Your task to perform on an android device: empty trash in the gmail app Image 0: 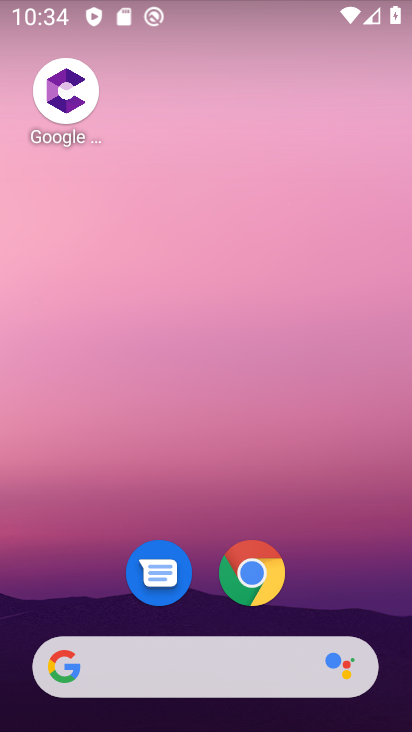
Step 0: drag from (345, 532) to (363, 98)
Your task to perform on an android device: empty trash in the gmail app Image 1: 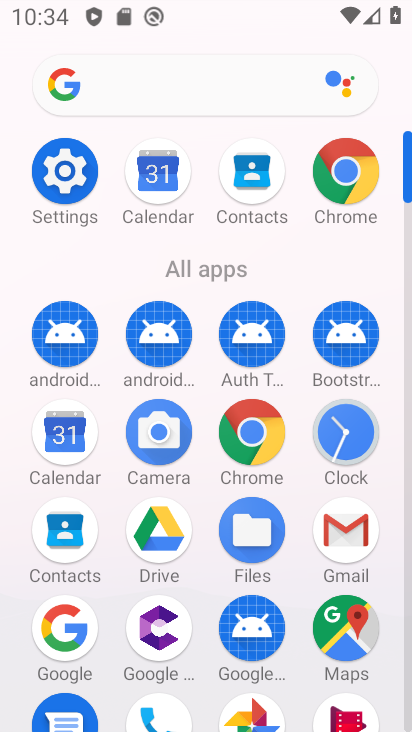
Step 1: click (345, 525)
Your task to perform on an android device: empty trash in the gmail app Image 2: 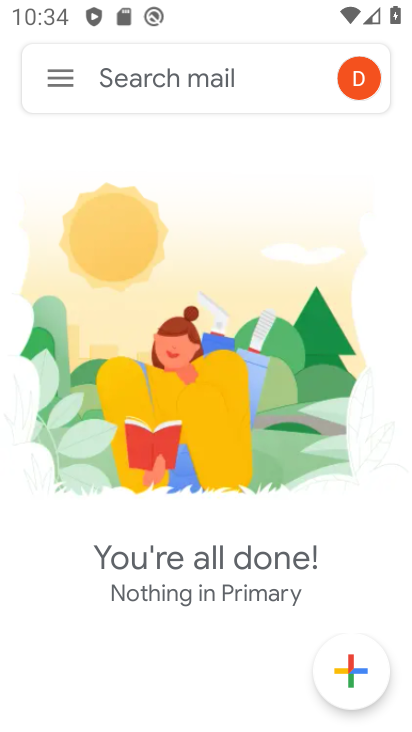
Step 2: click (71, 84)
Your task to perform on an android device: empty trash in the gmail app Image 3: 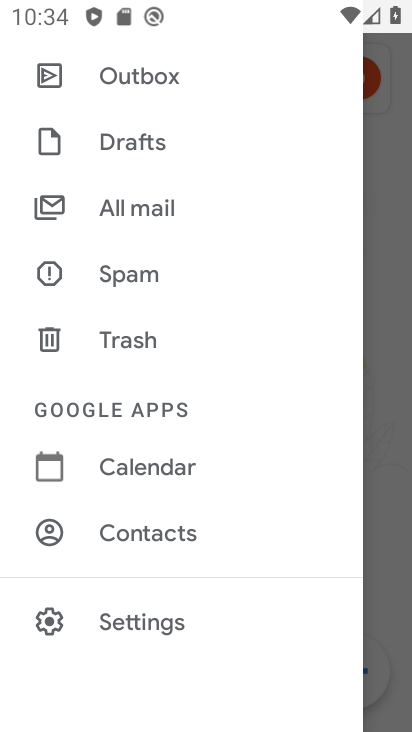
Step 3: click (134, 342)
Your task to perform on an android device: empty trash in the gmail app Image 4: 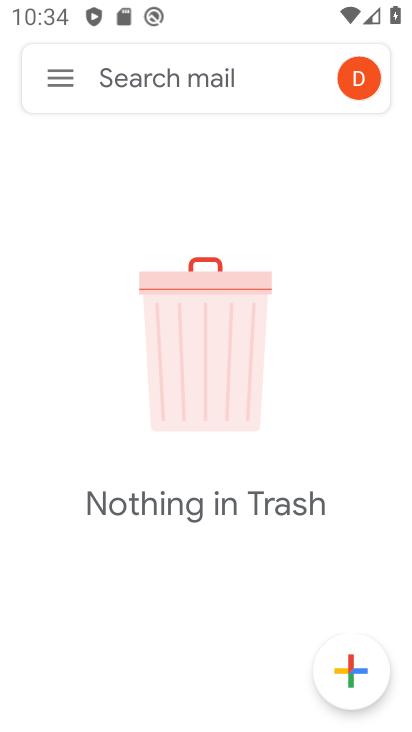
Step 4: task complete